Your task to perform on an android device: Is it going to rain this weekend? Image 0: 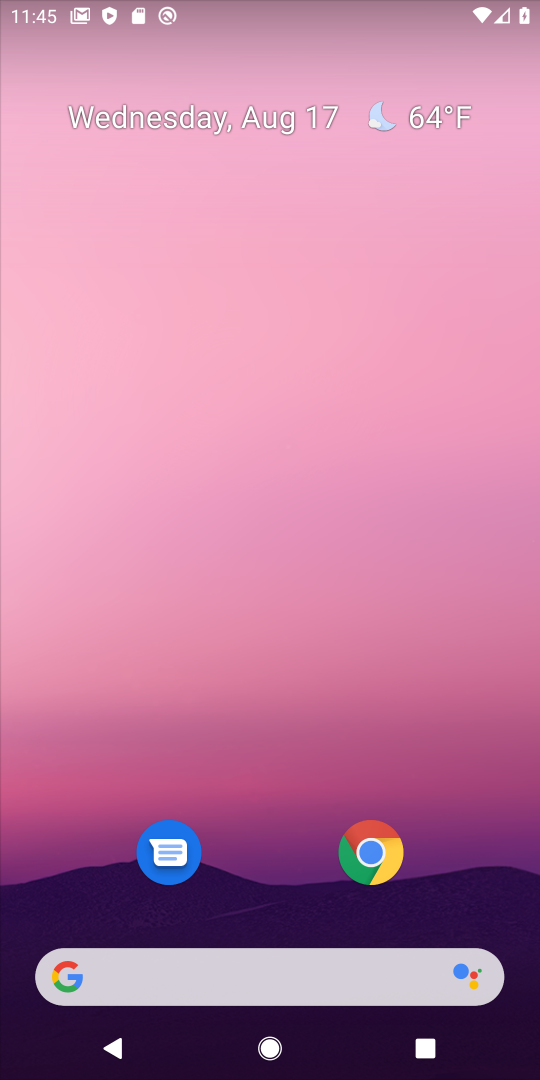
Step 0: drag from (495, 985) to (328, 1011)
Your task to perform on an android device: Is it going to rain this weekend? Image 1: 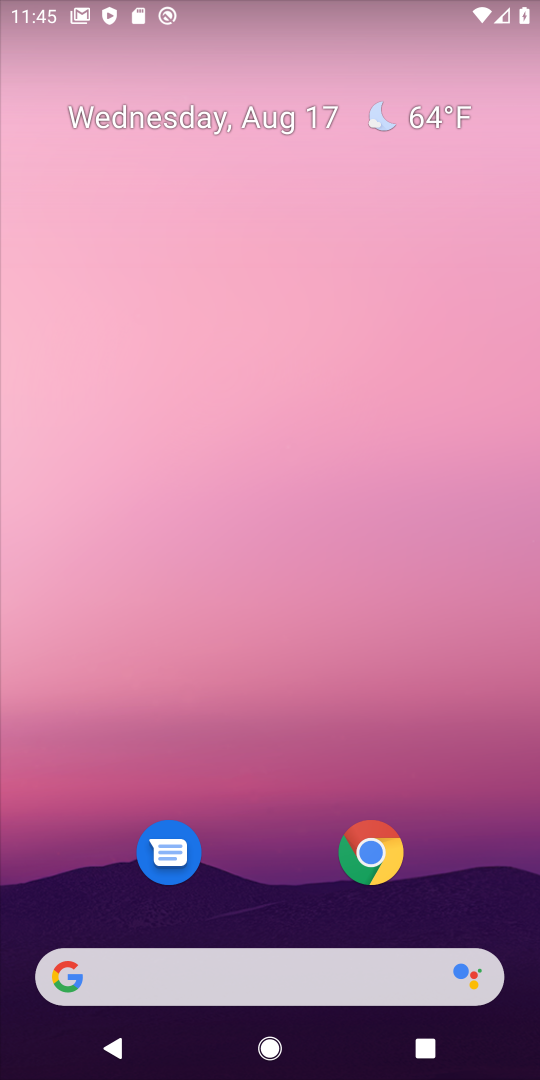
Step 1: click (196, 968)
Your task to perform on an android device: Is it going to rain this weekend? Image 2: 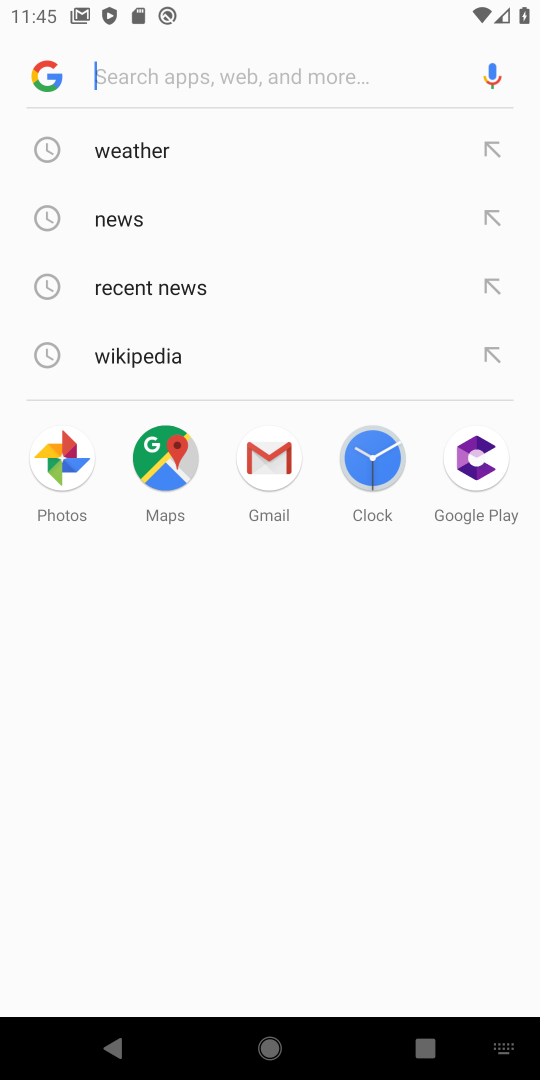
Step 2: type "Is it going to rain this weekend?"
Your task to perform on an android device: Is it going to rain this weekend? Image 3: 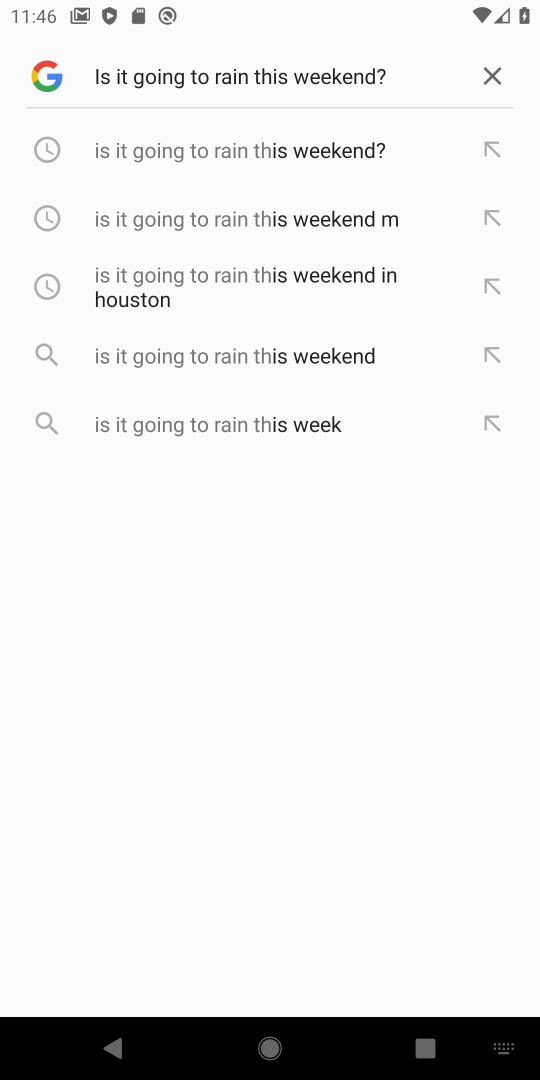
Step 3: press enter
Your task to perform on an android device: Is it going to rain this weekend? Image 4: 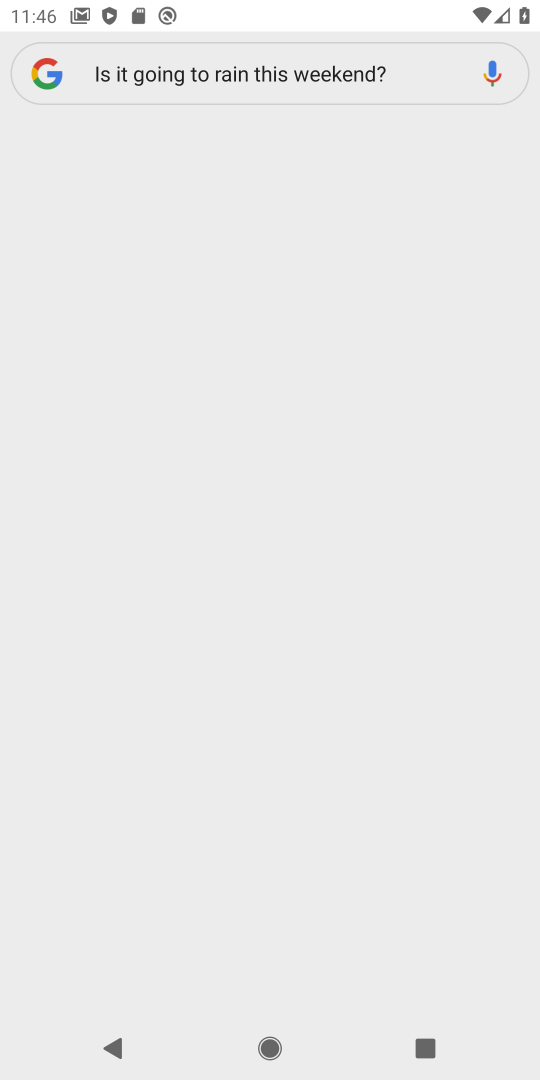
Step 4: press enter
Your task to perform on an android device: Is it going to rain this weekend? Image 5: 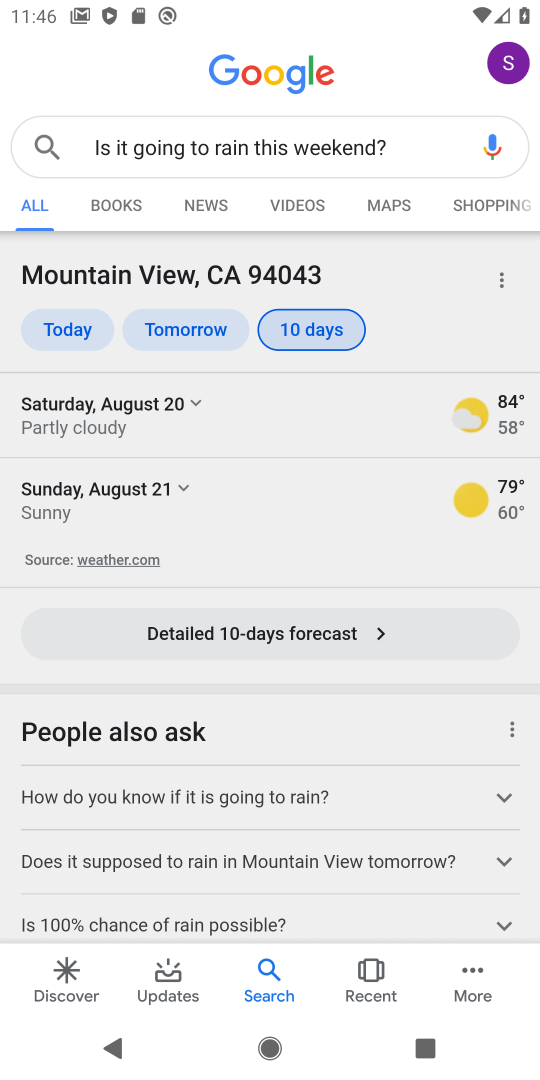
Step 5: task complete